Your task to perform on an android device: Go to internet settings Image 0: 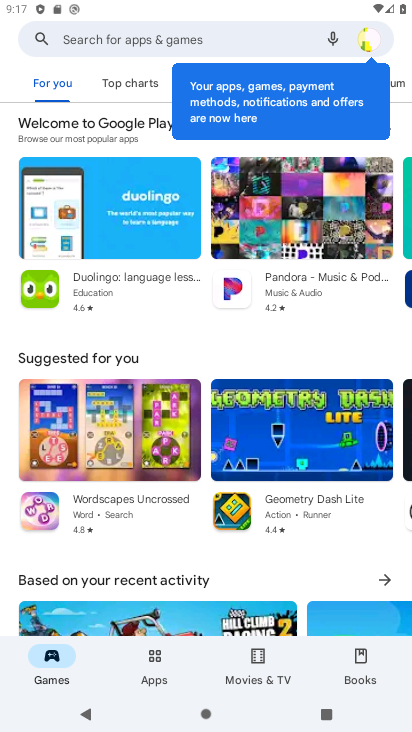
Step 0: press home button
Your task to perform on an android device: Go to internet settings Image 1: 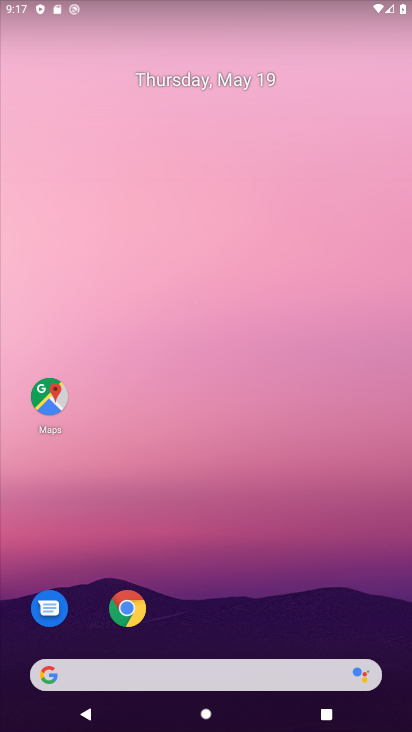
Step 1: drag from (187, 439) to (190, 215)
Your task to perform on an android device: Go to internet settings Image 2: 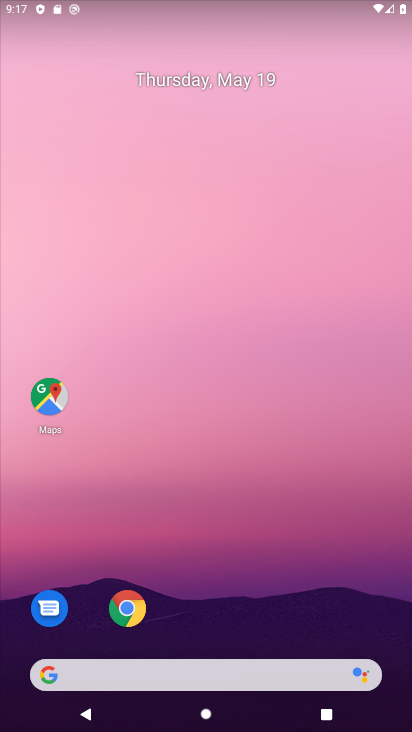
Step 2: drag from (198, 617) to (208, 219)
Your task to perform on an android device: Go to internet settings Image 3: 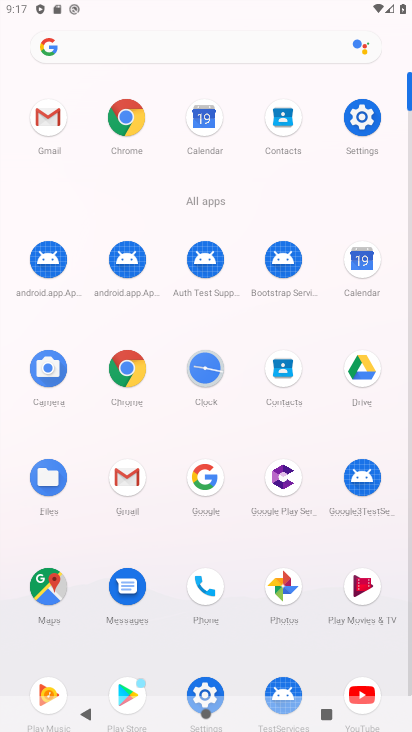
Step 3: click (360, 120)
Your task to perform on an android device: Go to internet settings Image 4: 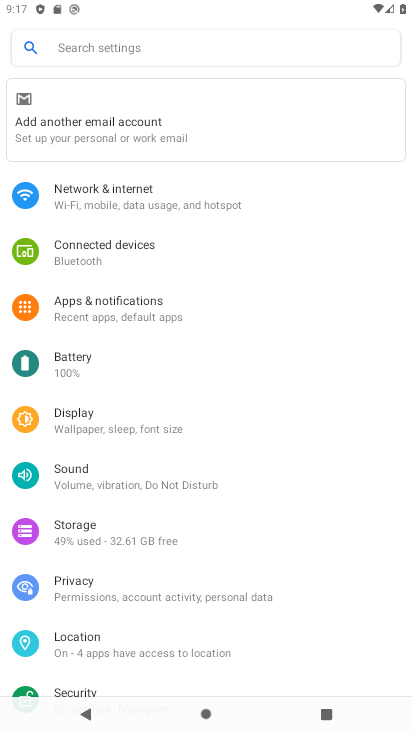
Step 4: click (110, 203)
Your task to perform on an android device: Go to internet settings Image 5: 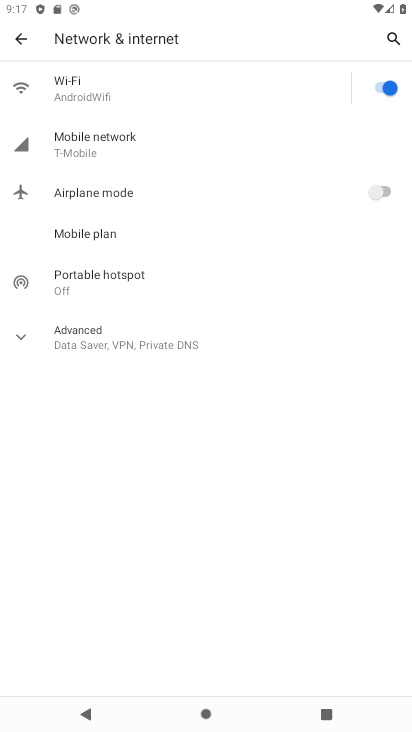
Step 5: task complete